Your task to perform on an android device: see creations saved in the google photos Image 0: 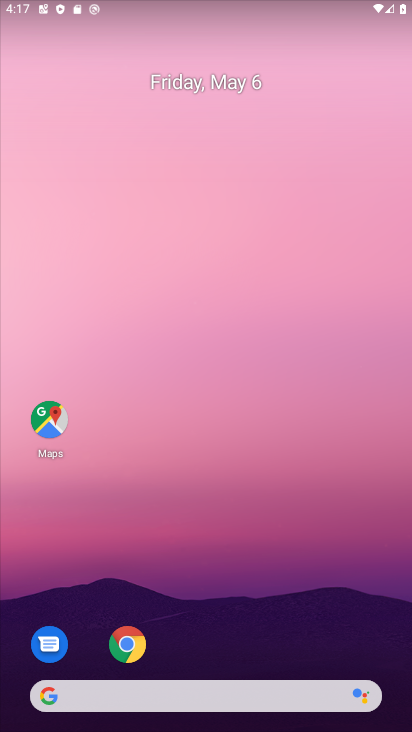
Step 0: drag from (281, 615) to (135, 76)
Your task to perform on an android device: see creations saved in the google photos Image 1: 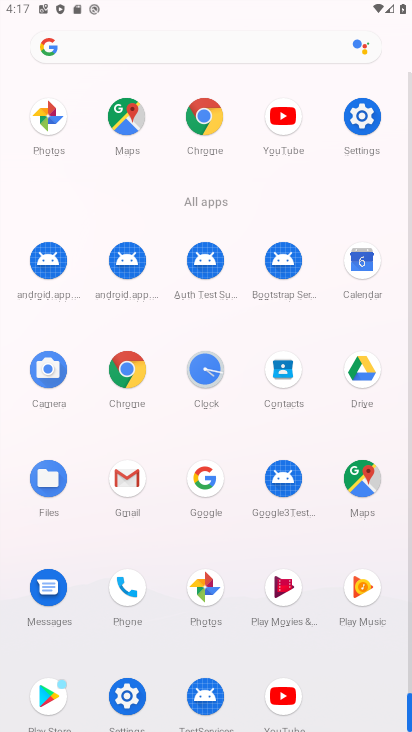
Step 1: click (199, 584)
Your task to perform on an android device: see creations saved in the google photos Image 2: 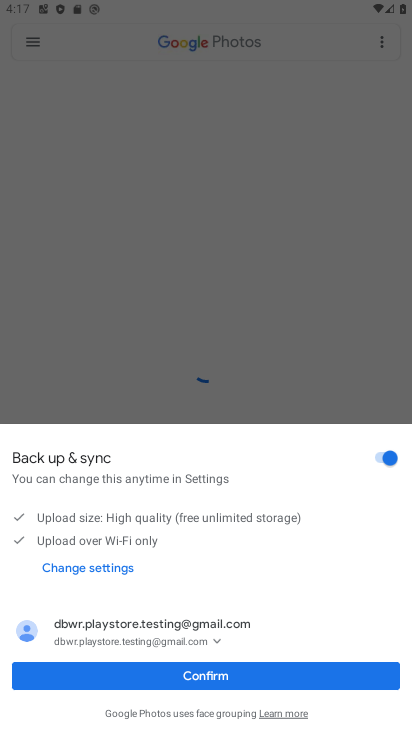
Step 2: click (229, 661)
Your task to perform on an android device: see creations saved in the google photos Image 3: 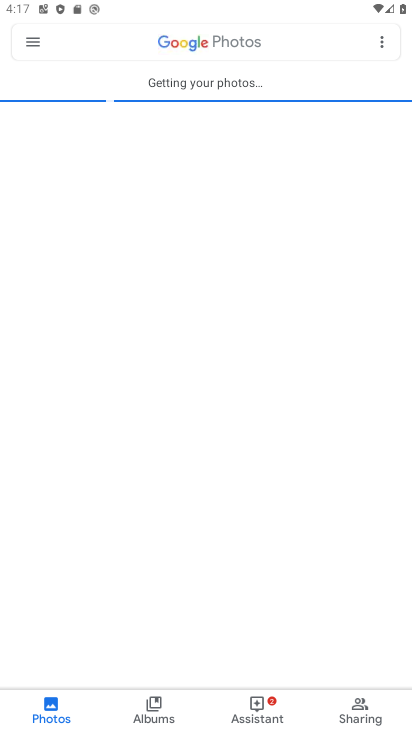
Step 3: click (216, 682)
Your task to perform on an android device: see creations saved in the google photos Image 4: 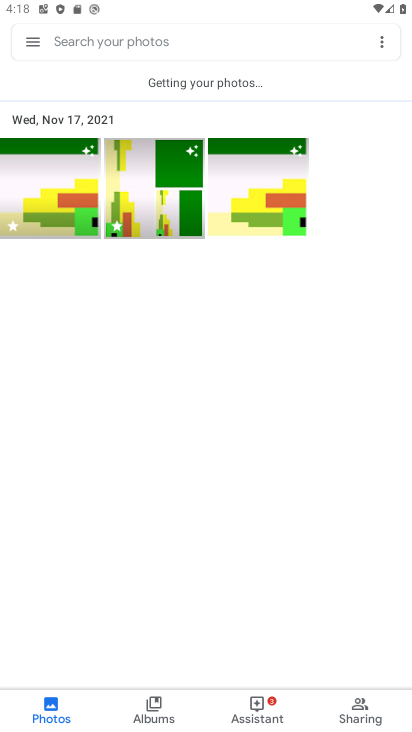
Step 4: task complete